Your task to perform on an android device: toggle notifications settings in the gmail app Image 0: 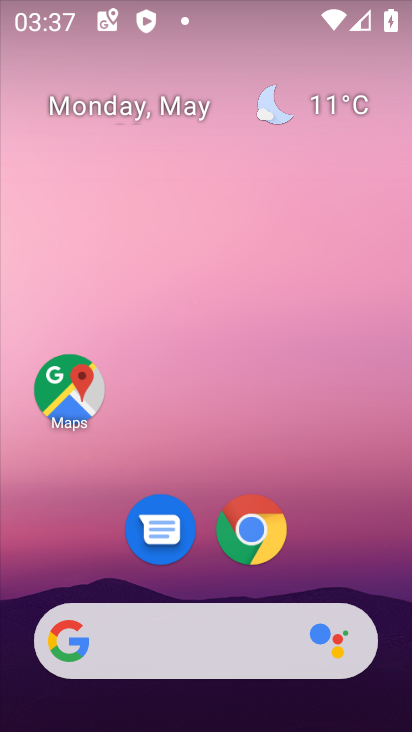
Step 0: drag from (321, 550) to (221, 162)
Your task to perform on an android device: toggle notifications settings in the gmail app Image 1: 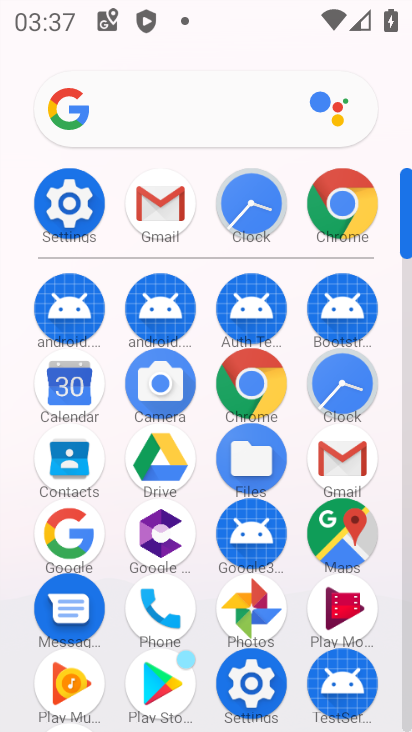
Step 1: click (81, 217)
Your task to perform on an android device: toggle notifications settings in the gmail app Image 2: 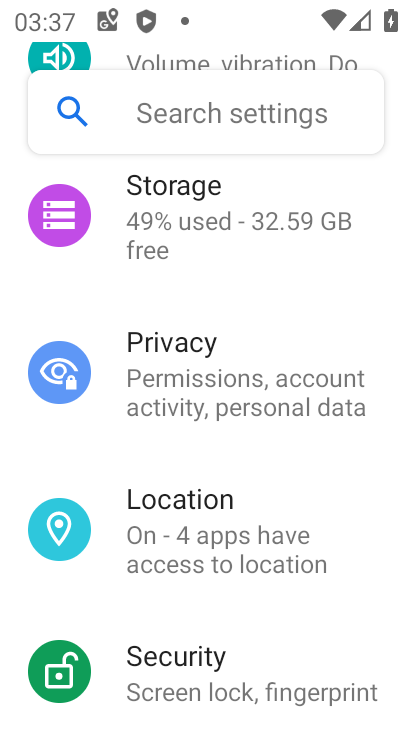
Step 2: drag from (246, 212) to (312, 614)
Your task to perform on an android device: toggle notifications settings in the gmail app Image 3: 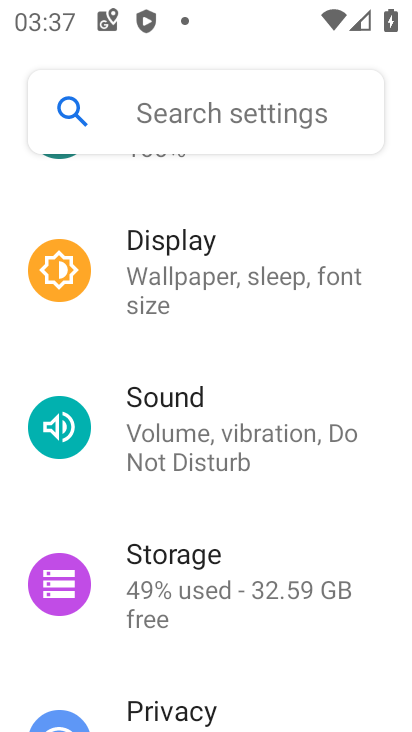
Step 3: drag from (235, 233) to (276, 588)
Your task to perform on an android device: toggle notifications settings in the gmail app Image 4: 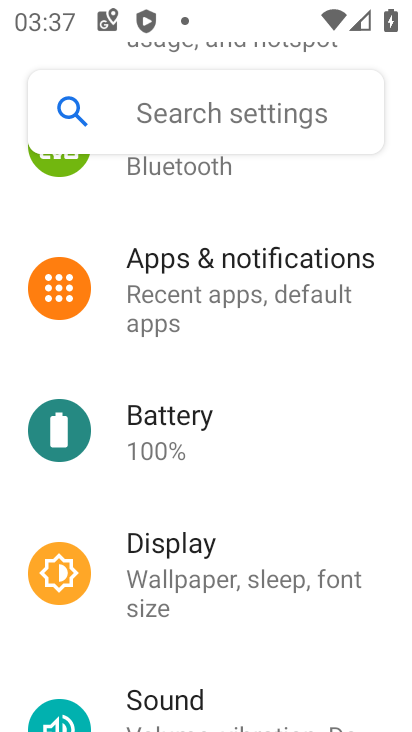
Step 4: click (229, 300)
Your task to perform on an android device: toggle notifications settings in the gmail app Image 5: 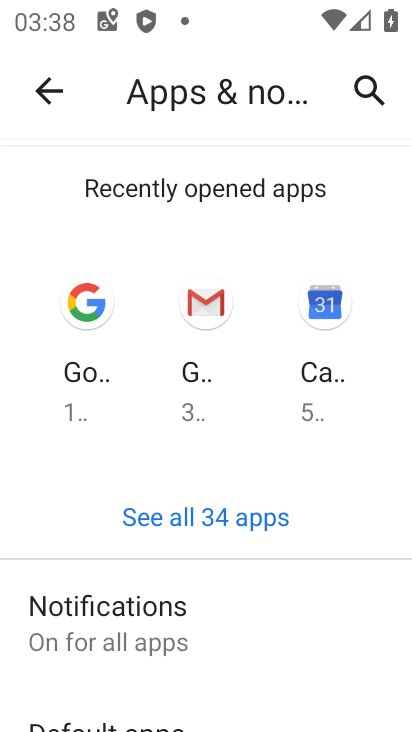
Step 5: drag from (243, 571) to (202, 134)
Your task to perform on an android device: toggle notifications settings in the gmail app Image 6: 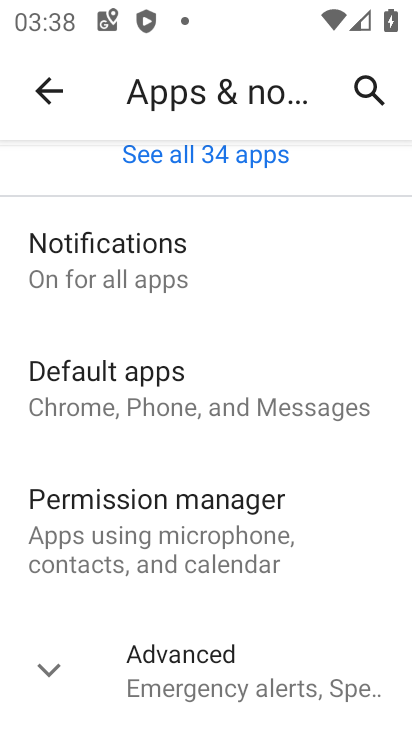
Step 6: click (138, 290)
Your task to perform on an android device: toggle notifications settings in the gmail app Image 7: 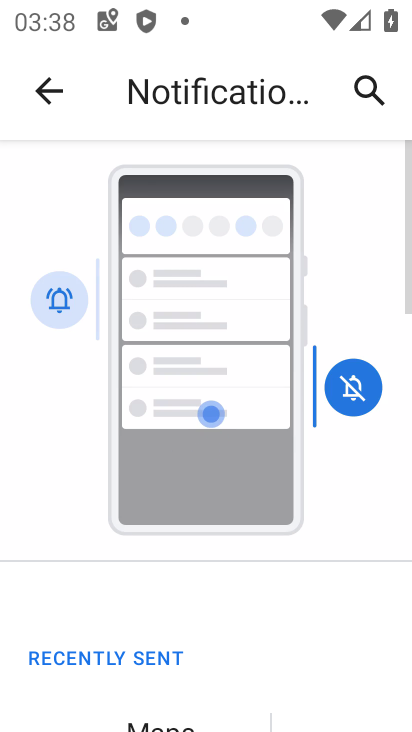
Step 7: drag from (334, 601) to (335, 44)
Your task to perform on an android device: toggle notifications settings in the gmail app Image 8: 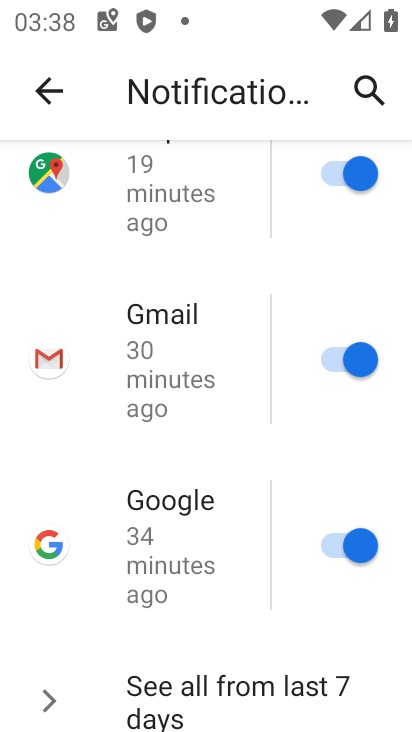
Step 8: click (70, 555)
Your task to perform on an android device: toggle notifications settings in the gmail app Image 9: 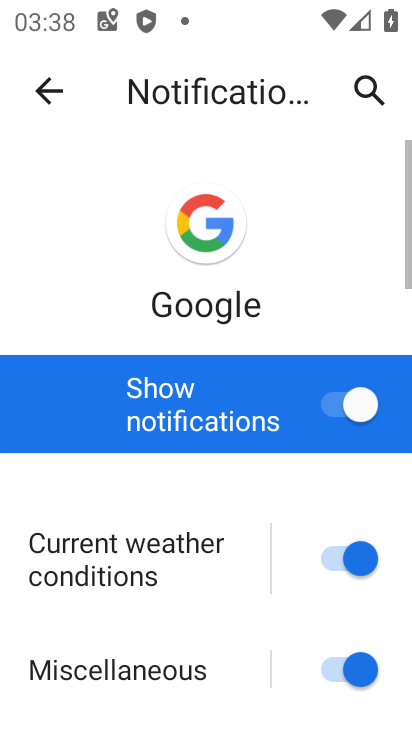
Step 9: click (46, 96)
Your task to perform on an android device: toggle notifications settings in the gmail app Image 10: 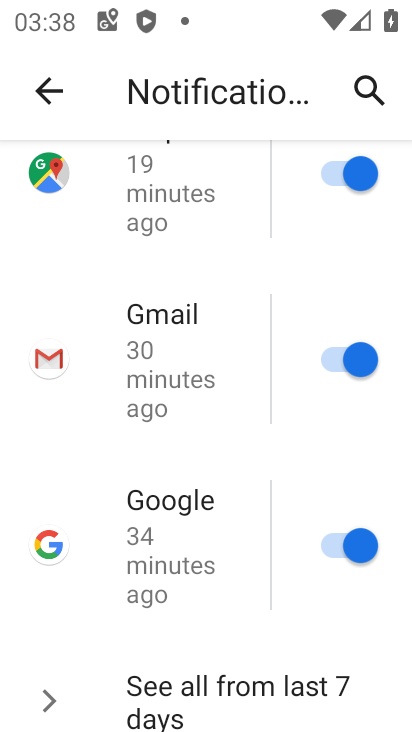
Step 10: click (57, 343)
Your task to perform on an android device: toggle notifications settings in the gmail app Image 11: 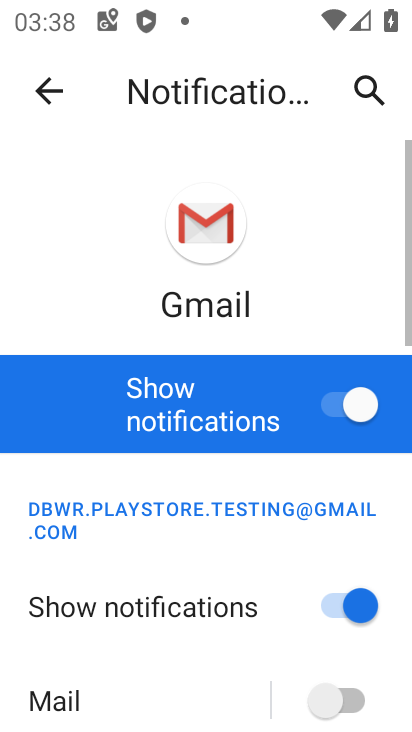
Step 11: drag from (250, 589) to (231, 147)
Your task to perform on an android device: toggle notifications settings in the gmail app Image 12: 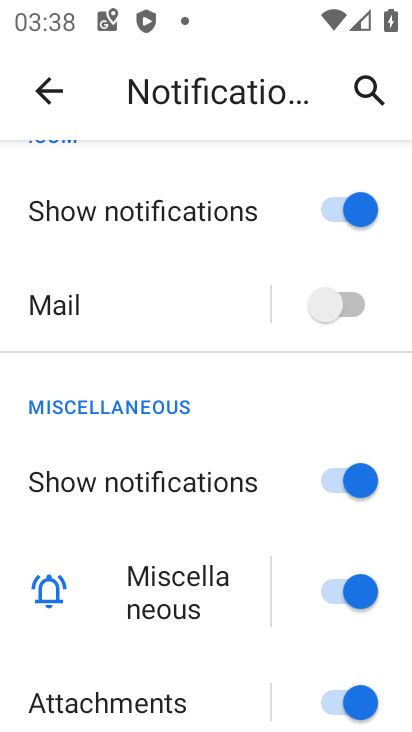
Step 12: drag from (86, 192) to (111, 546)
Your task to perform on an android device: toggle notifications settings in the gmail app Image 13: 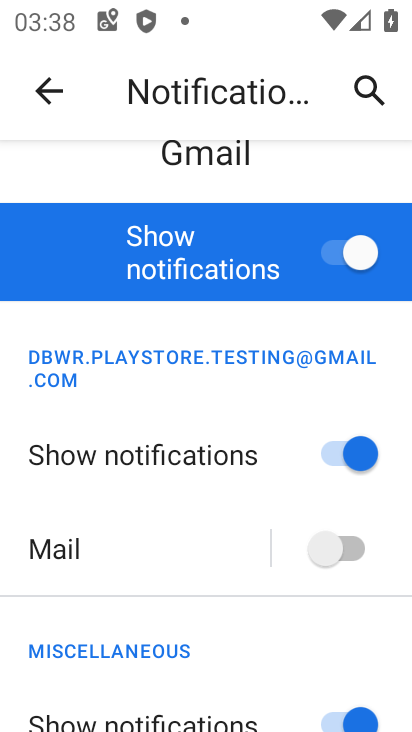
Step 13: click (352, 248)
Your task to perform on an android device: toggle notifications settings in the gmail app Image 14: 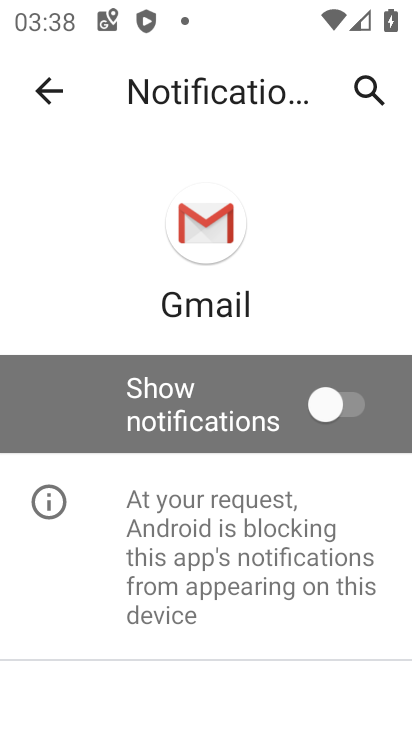
Step 14: task complete